Your task to perform on an android device: Show me popular videos on Youtube Image 0: 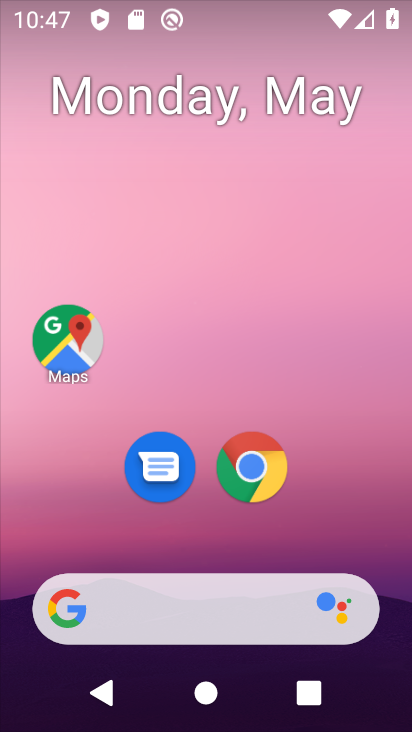
Step 0: drag from (352, 505) to (326, 79)
Your task to perform on an android device: Show me popular videos on Youtube Image 1: 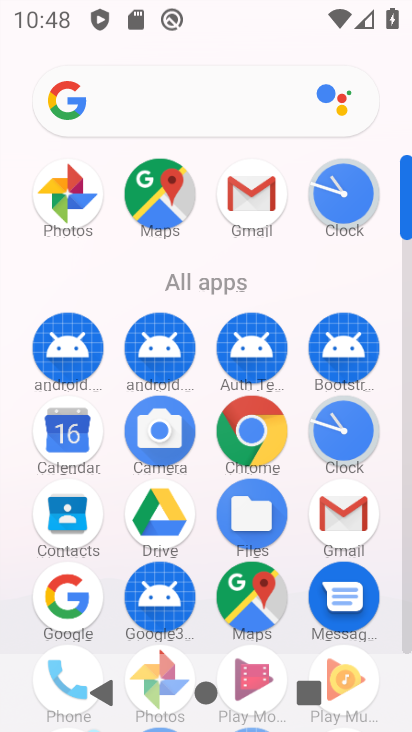
Step 1: click (405, 633)
Your task to perform on an android device: Show me popular videos on Youtube Image 2: 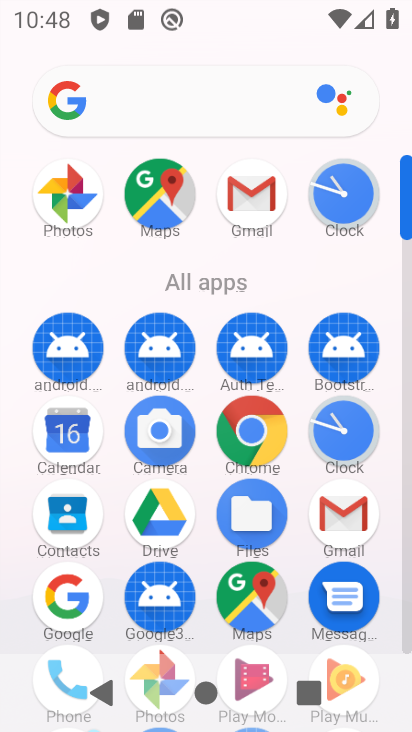
Step 2: click (405, 633)
Your task to perform on an android device: Show me popular videos on Youtube Image 3: 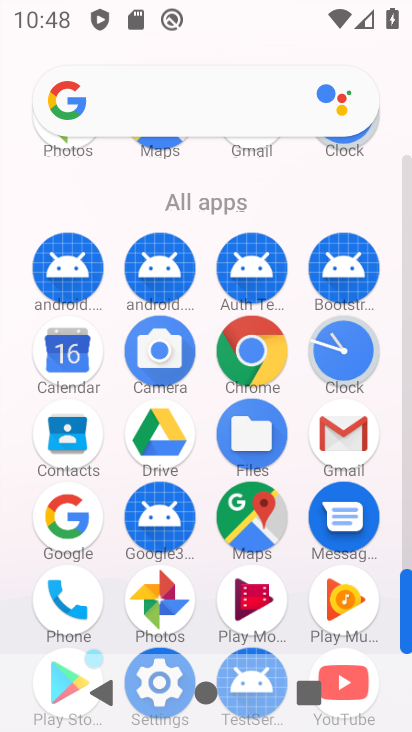
Step 3: click (405, 633)
Your task to perform on an android device: Show me popular videos on Youtube Image 4: 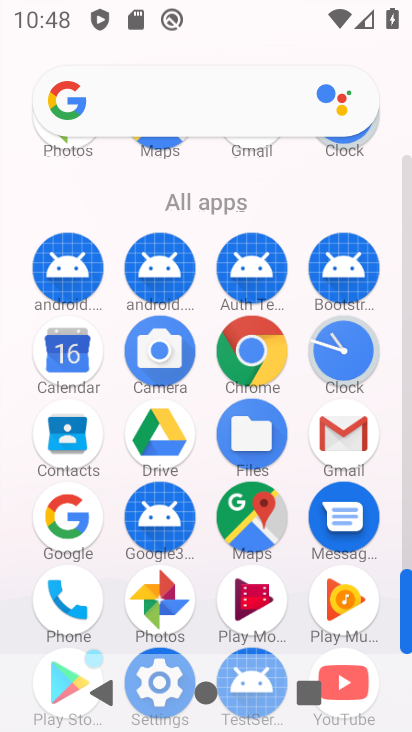
Step 4: click (405, 633)
Your task to perform on an android device: Show me popular videos on Youtube Image 5: 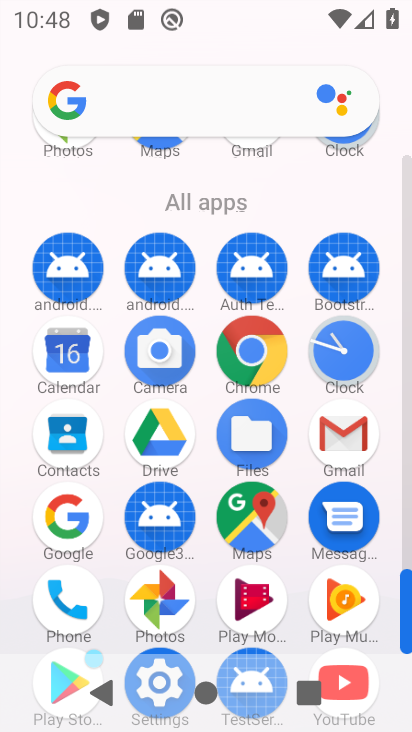
Step 5: click (332, 649)
Your task to perform on an android device: Show me popular videos on Youtube Image 6: 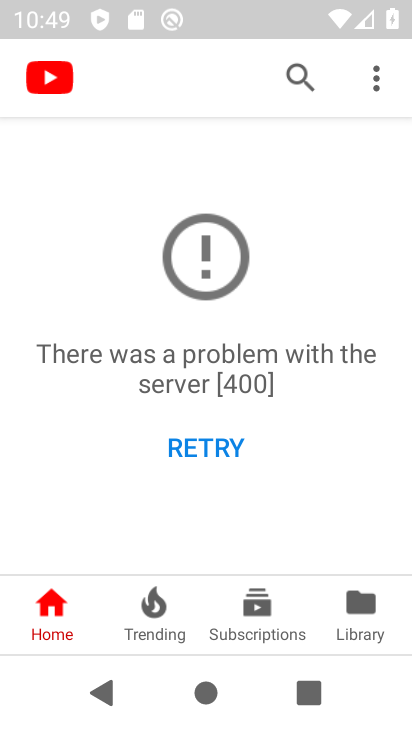
Step 6: click (354, 597)
Your task to perform on an android device: Show me popular videos on Youtube Image 7: 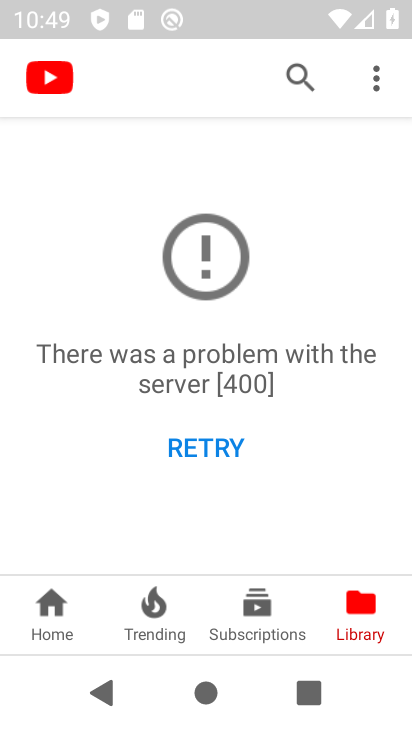
Step 7: task complete